Your task to perform on an android device: What's the weather going to be tomorrow? Image 0: 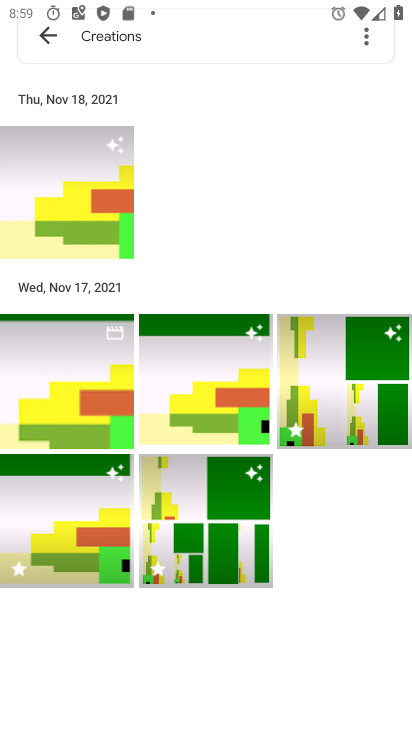
Step 0: press home button
Your task to perform on an android device: What's the weather going to be tomorrow? Image 1: 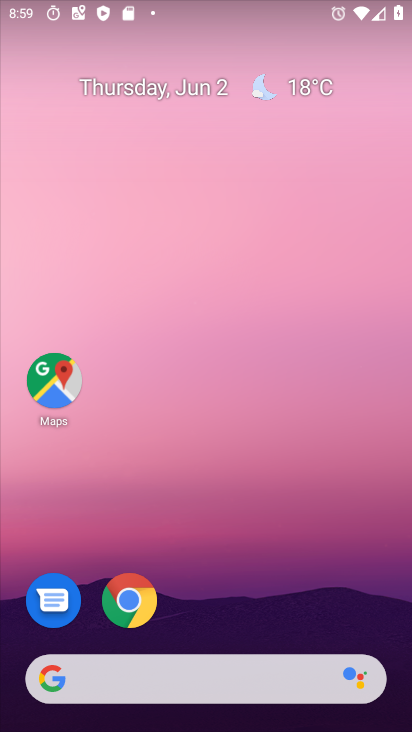
Step 1: click (294, 85)
Your task to perform on an android device: What's the weather going to be tomorrow? Image 2: 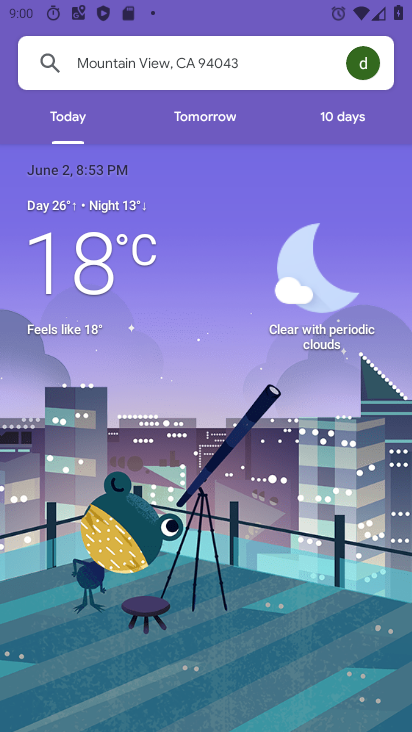
Step 2: click (214, 115)
Your task to perform on an android device: What's the weather going to be tomorrow? Image 3: 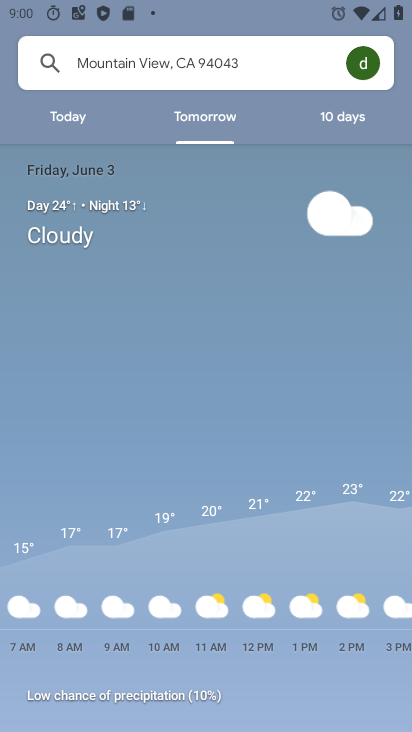
Step 3: task complete